Your task to perform on an android device: open chrome privacy settings Image 0: 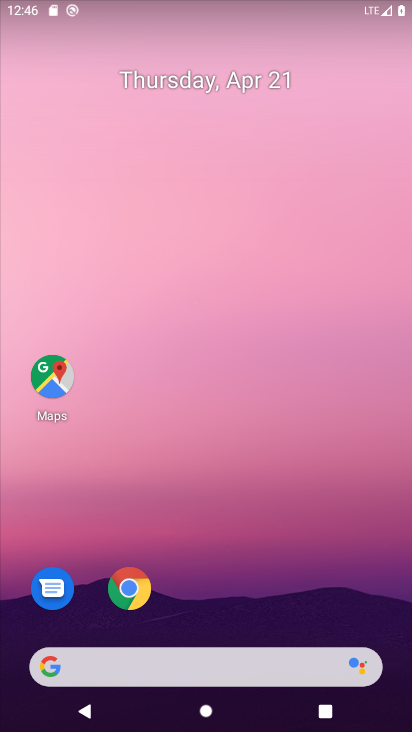
Step 0: drag from (218, 625) to (240, 68)
Your task to perform on an android device: open chrome privacy settings Image 1: 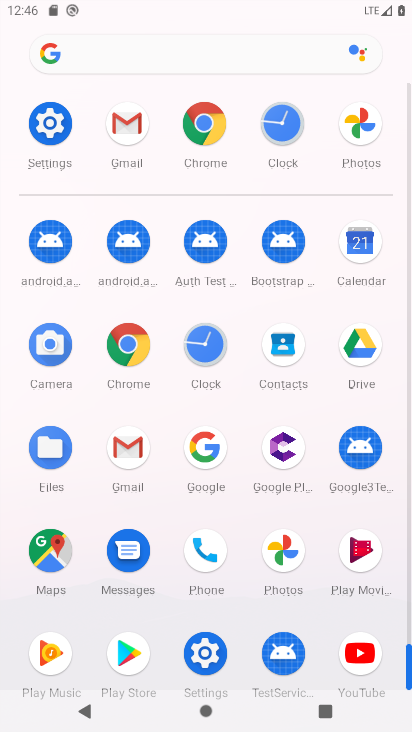
Step 1: click (201, 647)
Your task to perform on an android device: open chrome privacy settings Image 2: 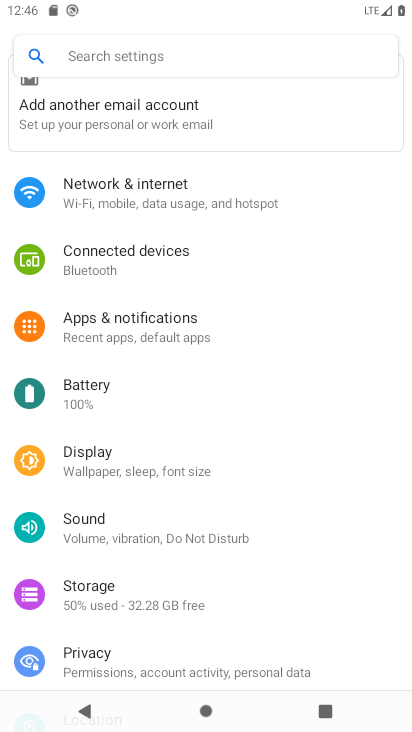
Step 2: click (125, 646)
Your task to perform on an android device: open chrome privacy settings Image 3: 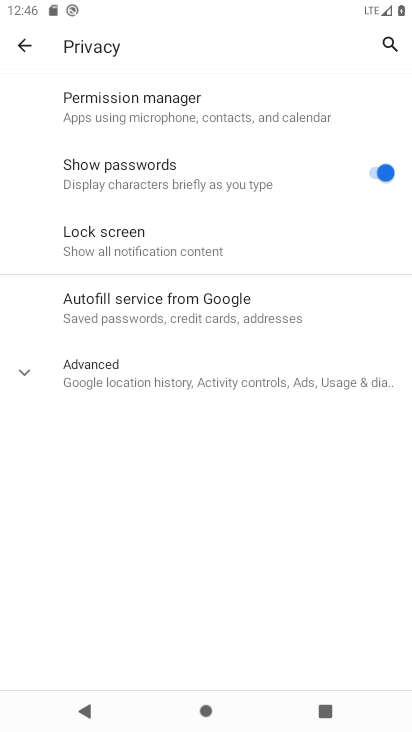
Step 3: click (30, 366)
Your task to perform on an android device: open chrome privacy settings Image 4: 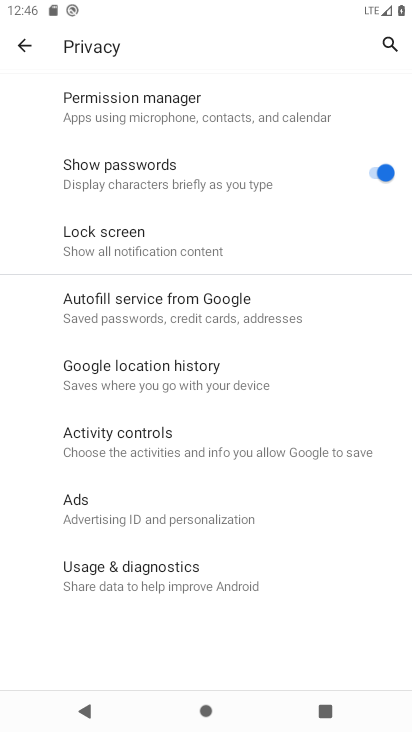
Step 4: task complete